Your task to perform on an android device: change the clock display to analog Image 0: 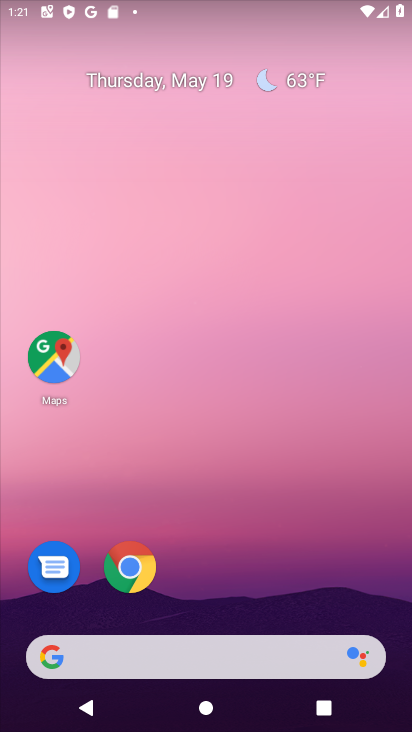
Step 0: drag from (298, 478) to (320, 73)
Your task to perform on an android device: change the clock display to analog Image 1: 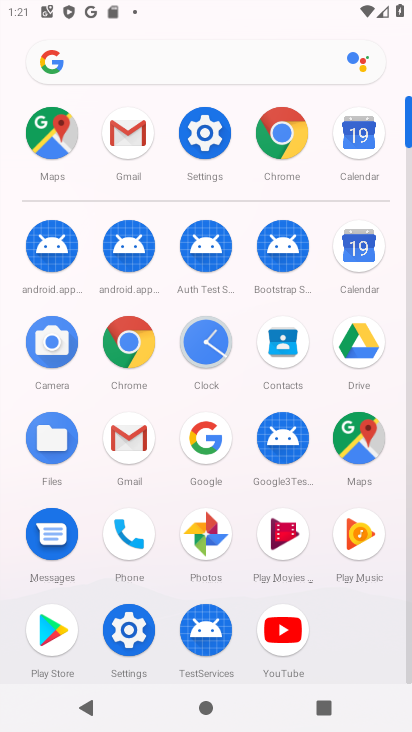
Step 1: click (193, 353)
Your task to perform on an android device: change the clock display to analog Image 2: 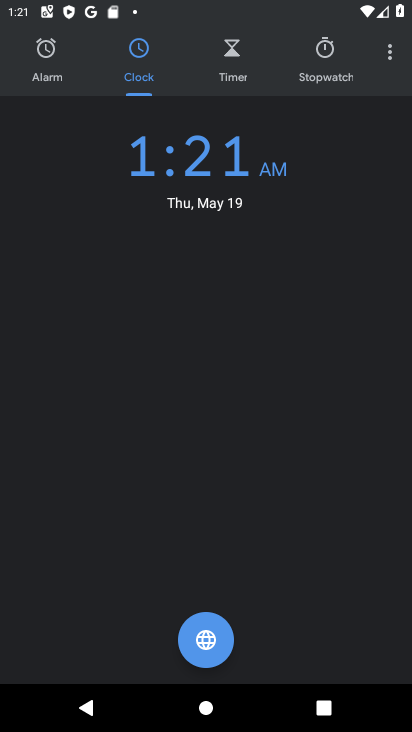
Step 2: click (390, 59)
Your task to perform on an android device: change the clock display to analog Image 3: 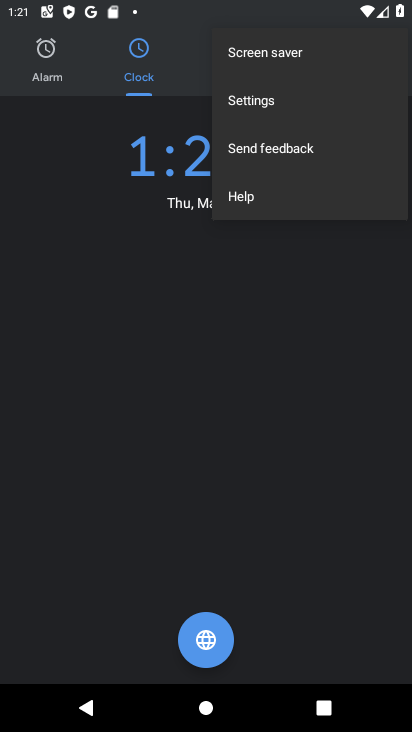
Step 3: click (247, 115)
Your task to perform on an android device: change the clock display to analog Image 4: 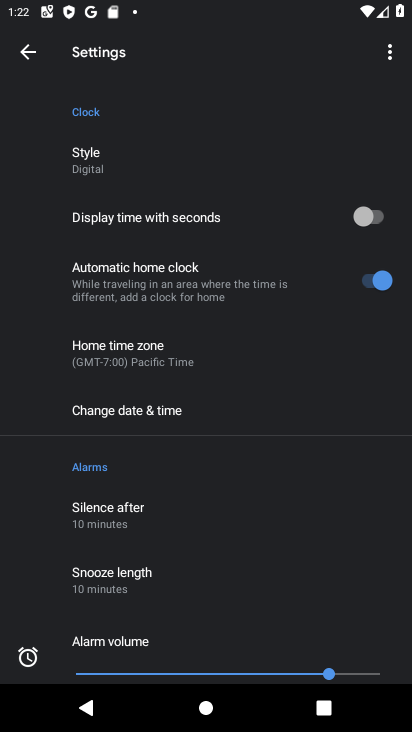
Step 4: click (88, 174)
Your task to perform on an android device: change the clock display to analog Image 5: 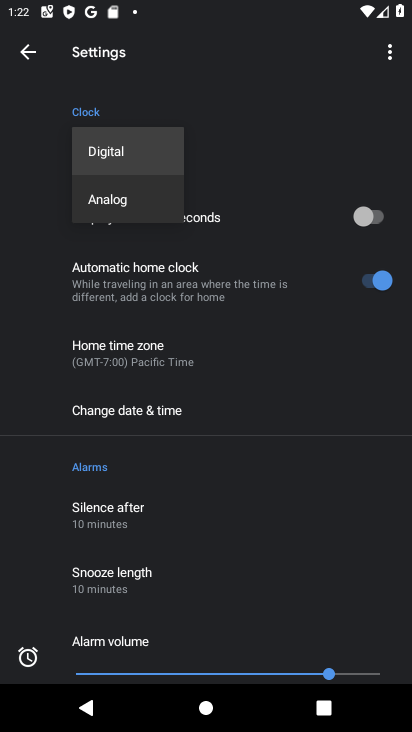
Step 5: click (106, 213)
Your task to perform on an android device: change the clock display to analog Image 6: 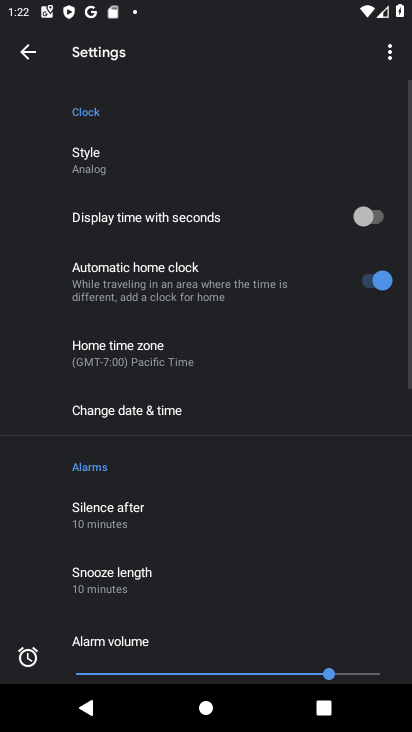
Step 6: task complete